Your task to perform on an android device: Show me the alarms in the clock app Image 0: 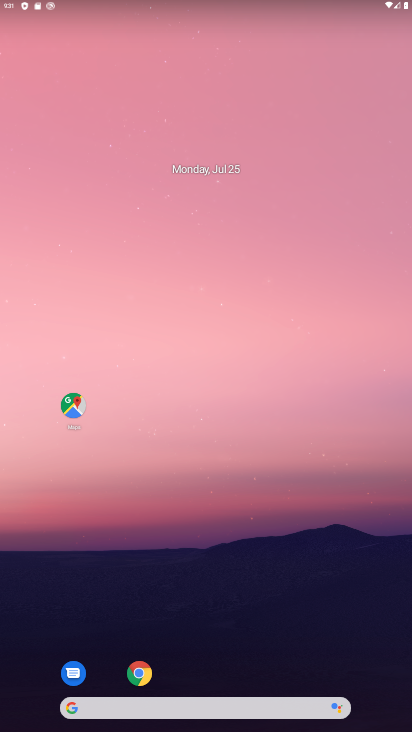
Step 0: drag from (179, 602) to (229, 184)
Your task to perform on an android device: Show me the alarms in the clock app Image 1: 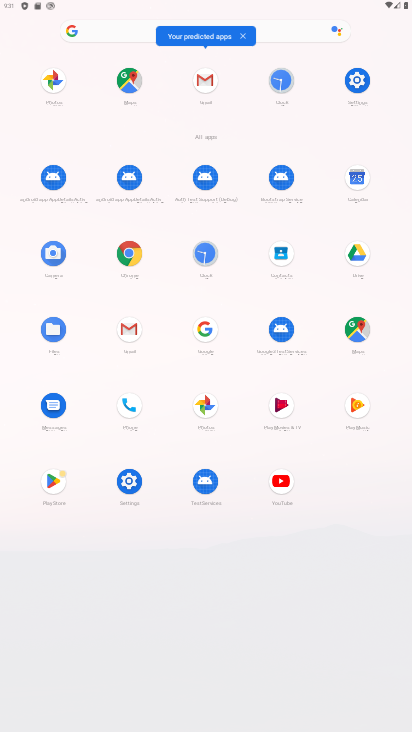
Step 1: click (209, 247)
Your task to perform on an android device: Show me the alarms in the clock app Image 2: 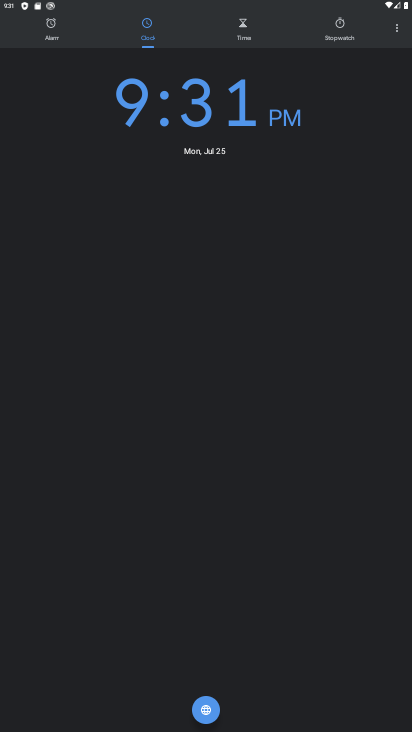
Step 2: click (51, 24)
Your task to perform on an android device: Show me the alarms in the clock app Image 3: 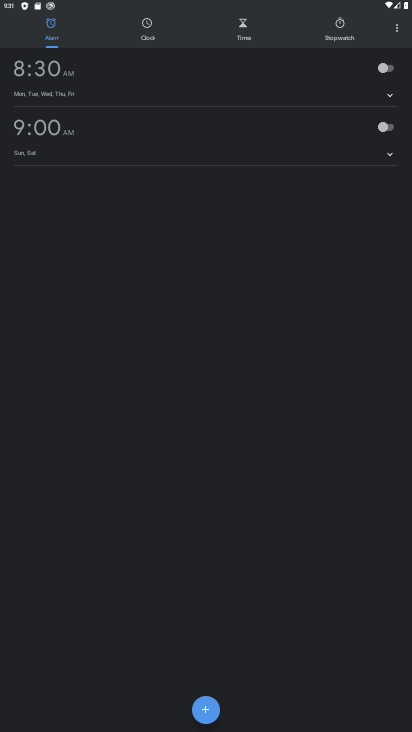
Step 3: task complete